Your task to perform on an android device: open app "Microsoft Excel" (install if not already installed) and enter user name: "kidnappers@icloud.com" and password: "Bessemerizes" Image 0: 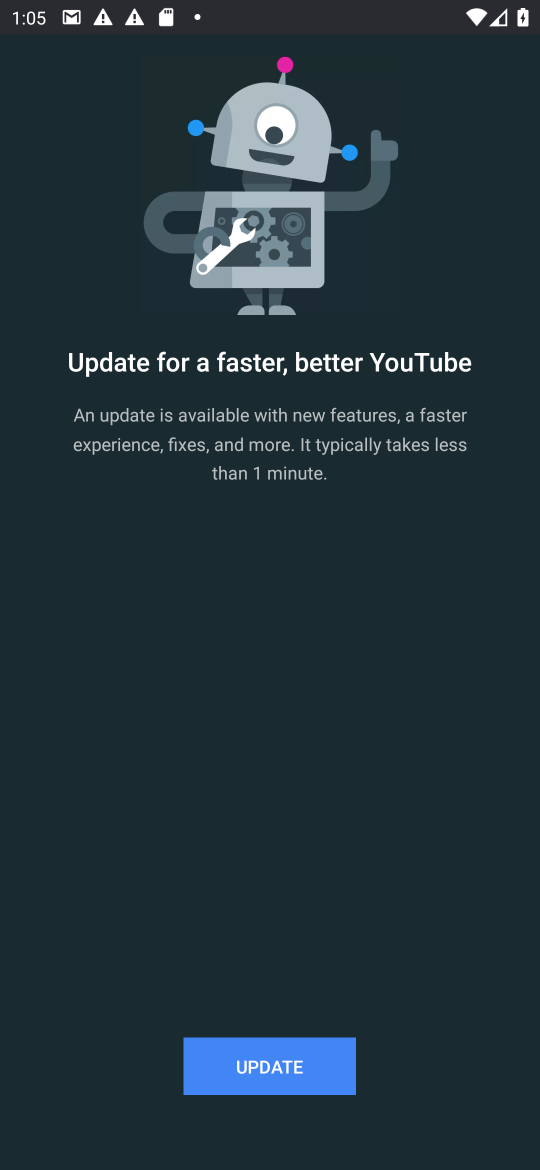
Step 0: press home button
Your task to perform on an android device: open app "Microsoft Excel" (install if not already installed) and enter user name: "kidnappers@icloud.com" and password: "Bessemerizes" Image 1: 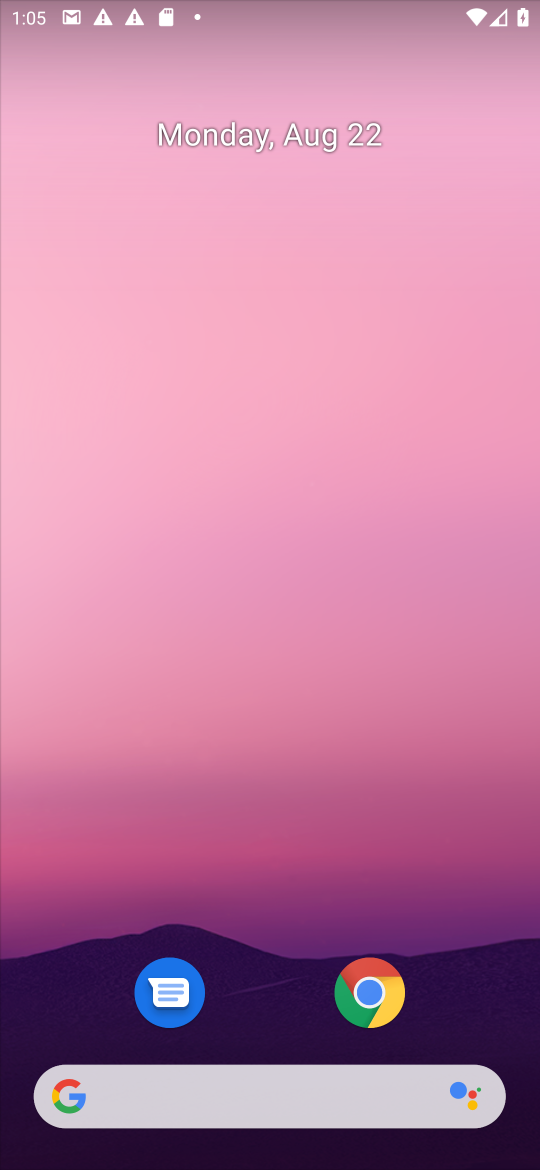
Step 1: drag from (277, 1067) to (251, 212)
Your task to perform on an android device: open app "Microsoft Excel" (install if not already installed) and enter user name: "kidnappers@icloud.com" and password: "Bessemerizes" Image 2: 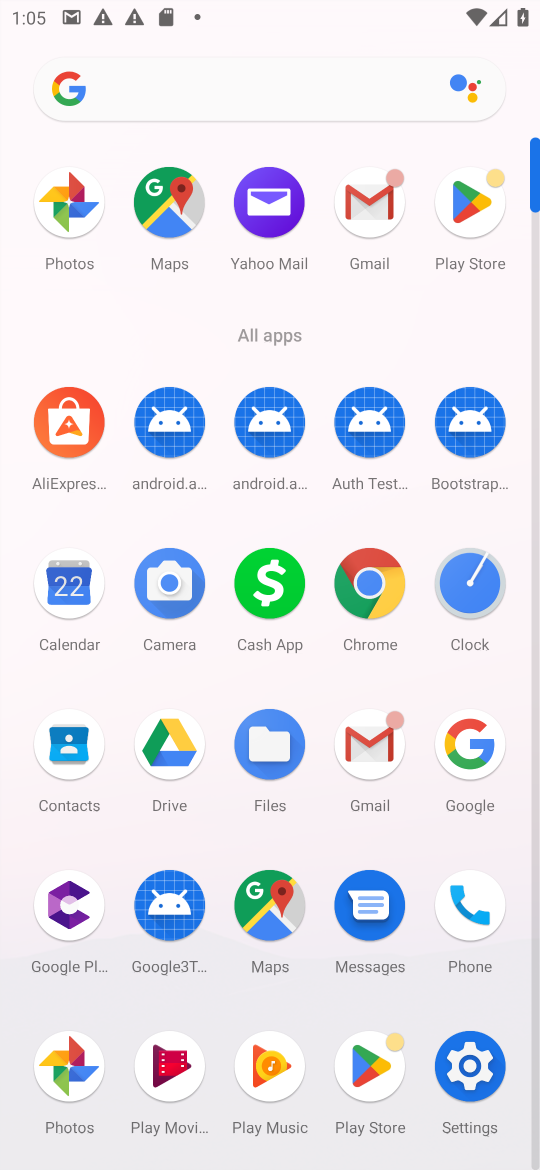
Step 2: click (460, 206)
Your task to perform on an android device: open app "Microsoft Excel" (install if not already installed) and enter user name: "kidnappers@icloud.com" and password: "Bessemerizes" Image 3: 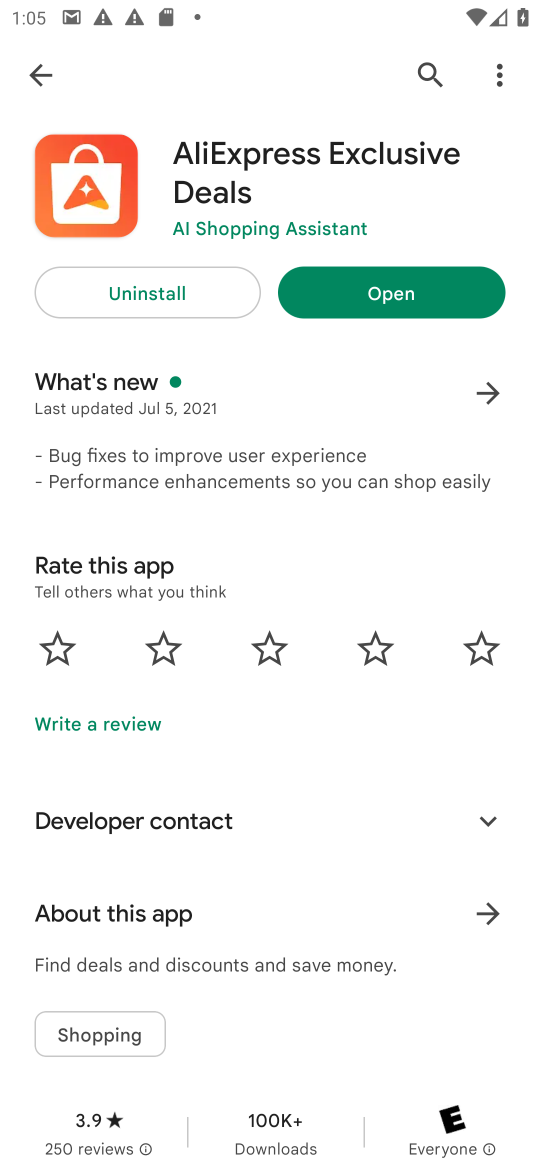
Step 3: click (422, 70)
Your task to perform on an android device: open app "Microsoft Excel" (install if not already installed) and enter user name: "kidnappers@icloud.com" and password: "Bessemerizes" Image 4: 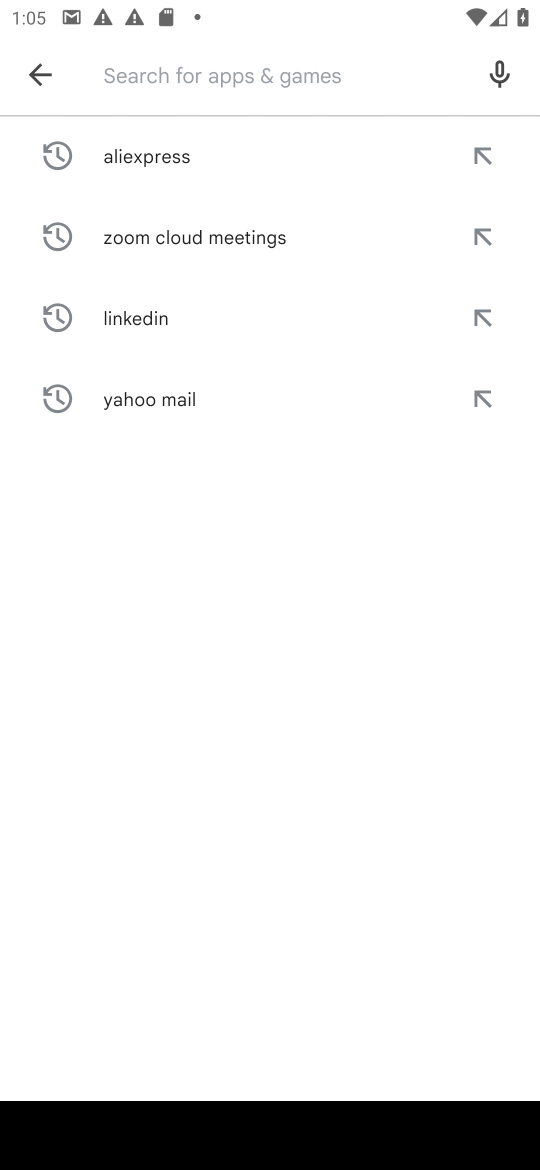
Step 4: type "Microsoft Excel"
Your task to perform on an android device: open app "Microsoft Excel" (install if not already installed) and enter user name: "kidnappers@icloud.com" and password: "Bessemerizes" Image 5: 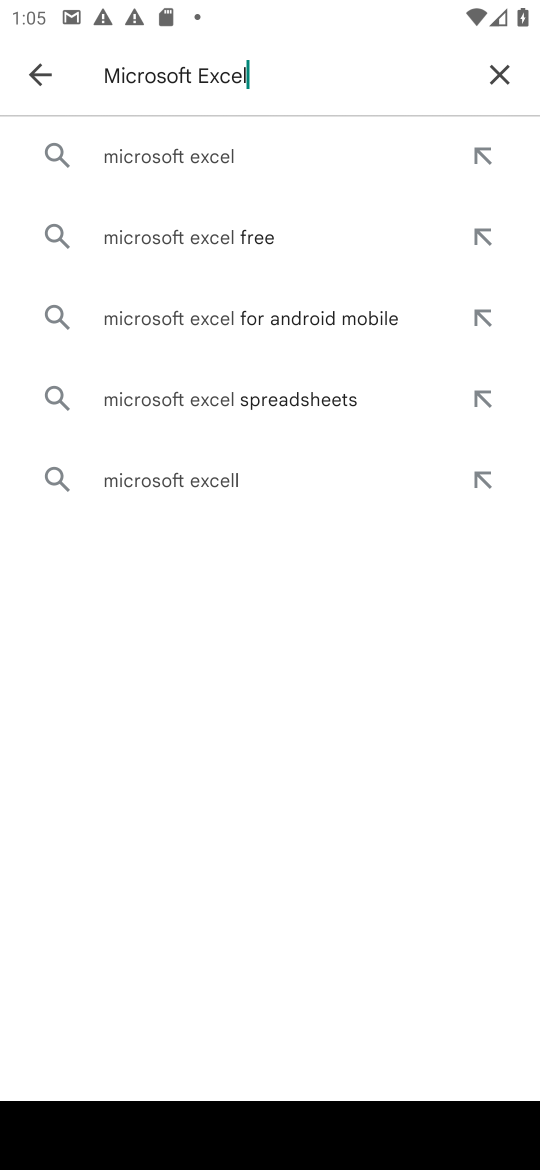
Step 5: click (196, 163)
Your task to perform on an android device: open app "Microsoft Excel" (install if not already installed) and enter user name: "kidnappers@icloud.com" and password: "Bessemerizes" Image 6: 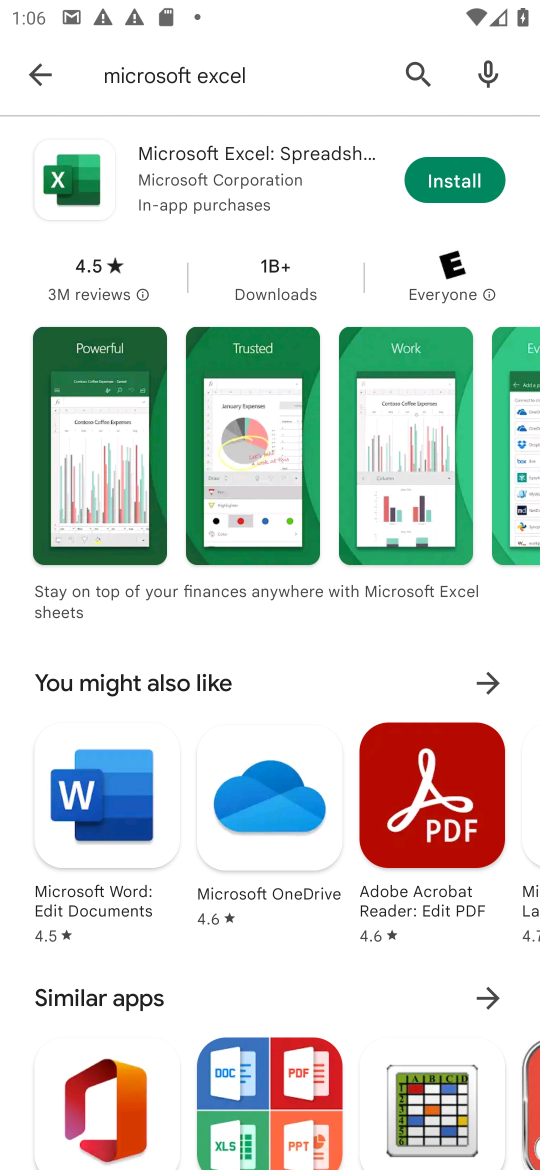
Step 6: click (465, 183)
Your task to perform on an android device: open app "Microsoft Excel" (install if not already installed) and enter user name: "kidnappers@icloud.com" and password: "Bessemerizes" Image 7: 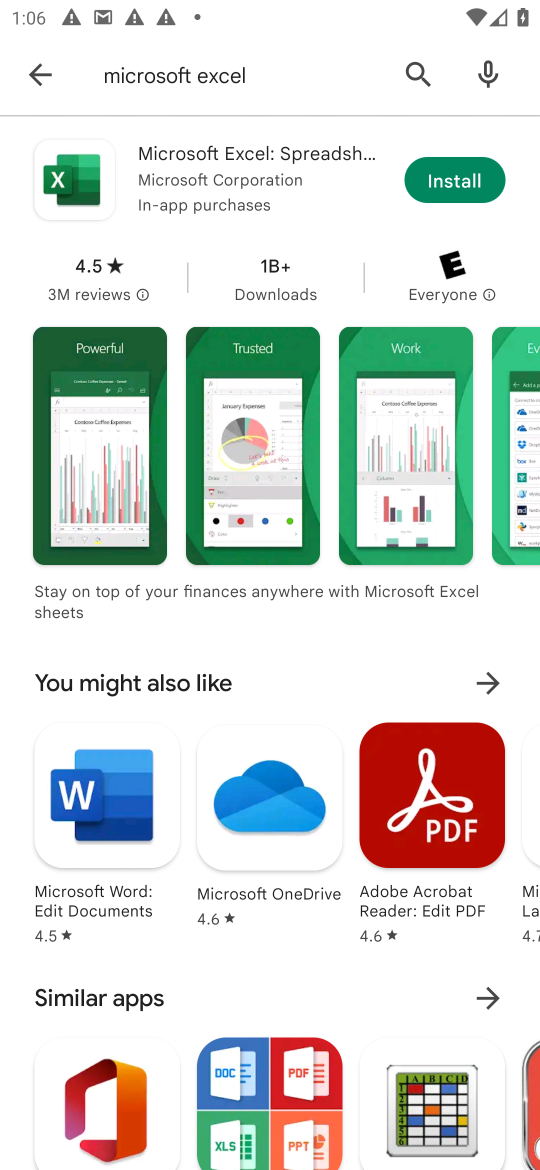
Step 7: task complete